Your task to perform on an android device: refresh tabs in the chrome app Image 0: 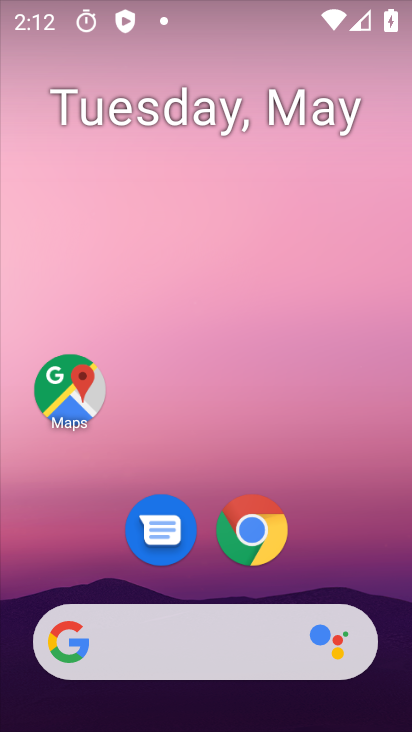
Step 0: click (249, 548)
Your task to perform on an android device: refresh tabs in the chrome app Image 1: 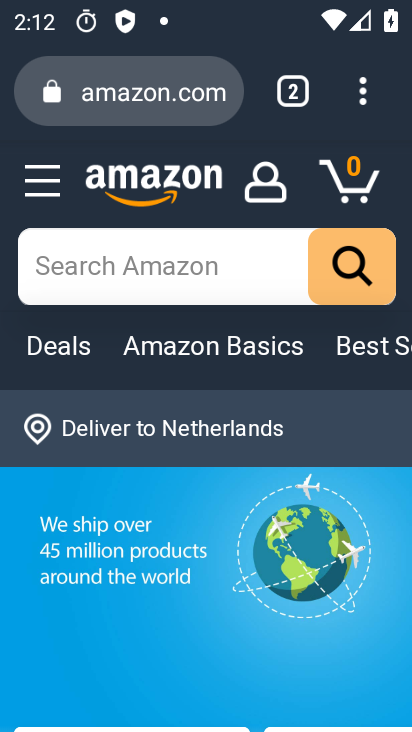
Step 1: click (367, 102)
Your task to perform on an android device: refresh tabs in the chrome app Image 2: 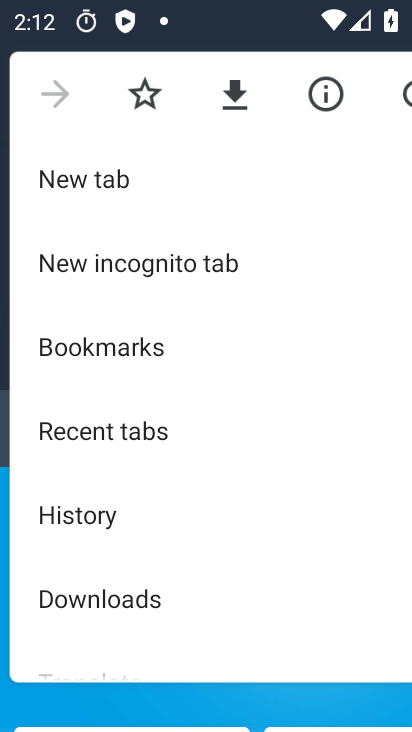
Step 2: click (403, 94)
Your task to perform on an android device: refresh tabs in the chrome app Image 3: 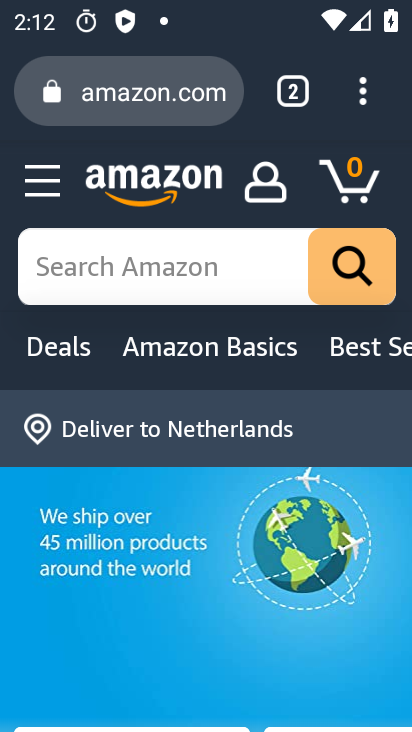
Step 3: task complete